Your task to perform on an android device: turn on the 12-hour format for clock Image 0: 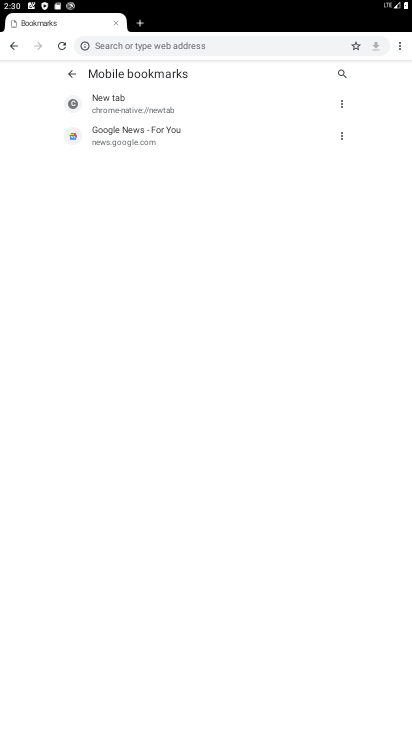
Step 0: press home button
Your task to perform on an android device: turn on the 12-hour format for clock Image 1: 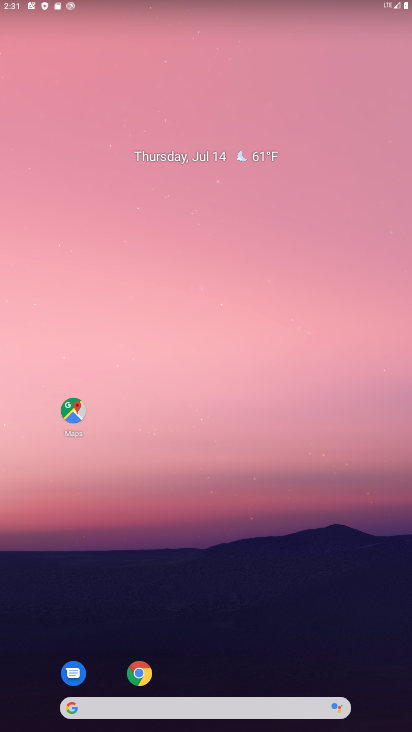
Step 1: drag from (239, 312) to (172, 15)
Your task to perform on an android device: turn on the 12-hour format for clock Image 2: 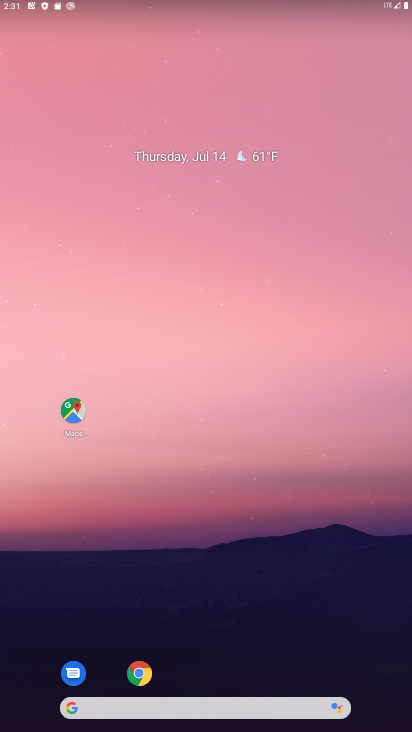
Step 2: drag from (200, 684) to (235, 107)
Your task to perform on an android device: turn on the 12-hour format for clock Image 3: 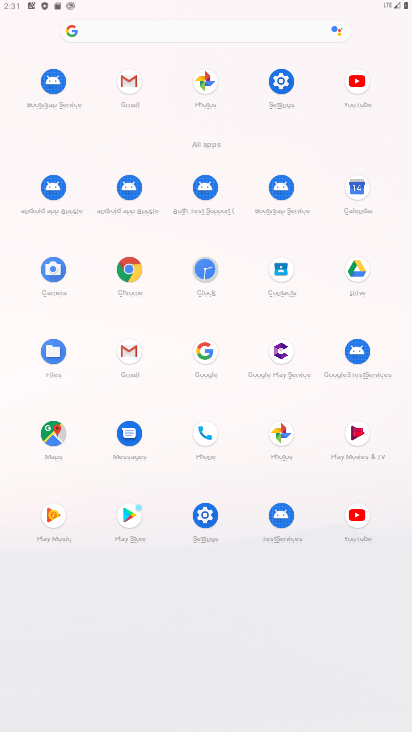
Step 3: click (208, 266)
Your task to perform on an android device: turn on the 12-hour format for clock Image 4: 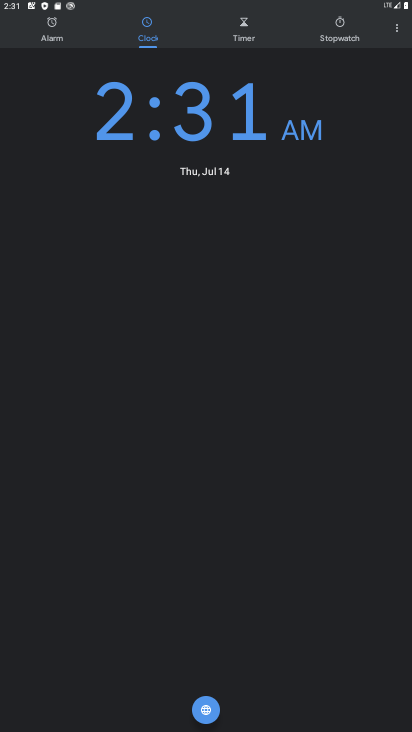
Step 4: click (403, 41)
Your task to perform on an android device: turn on the 12-hour format for clock Image 5: 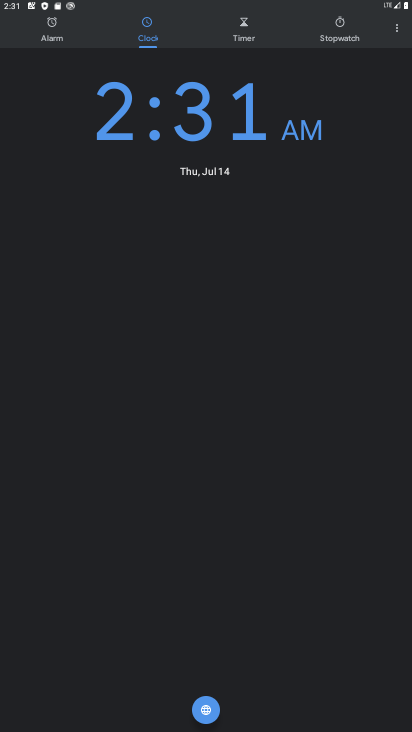
Step 5: click (403, 41)
Your task to perform on an android device: turn on the 12-hour format for clock Image 6: 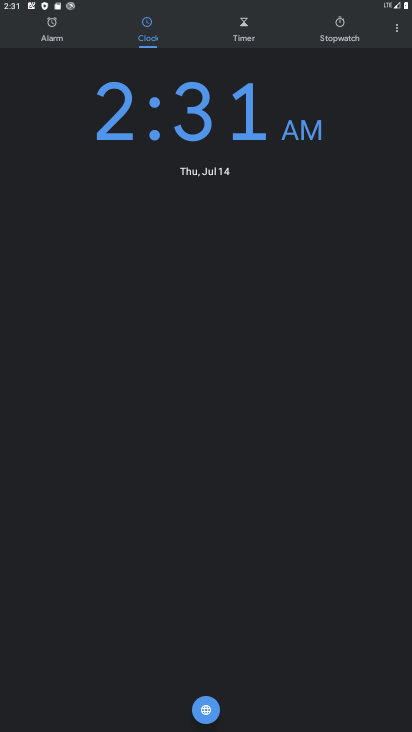
Step 6: click (391, 31)
Your task to perform on an android device: turn on the 12-hour format for clock Image 7: 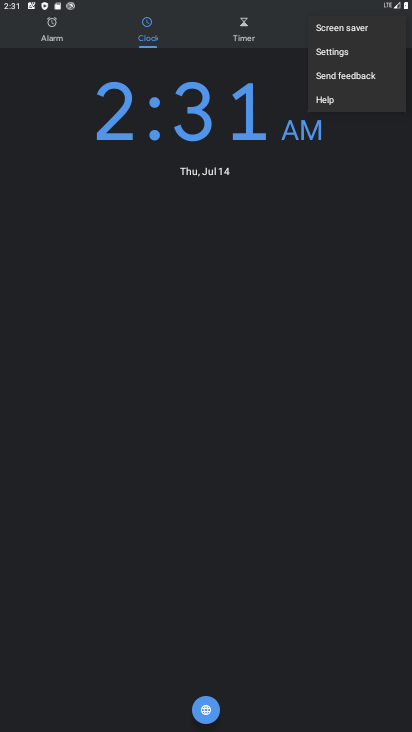
Step 7: click (330, 61)
Your task to perform on an android device: turn on the 12-hour format for clock Image 8: 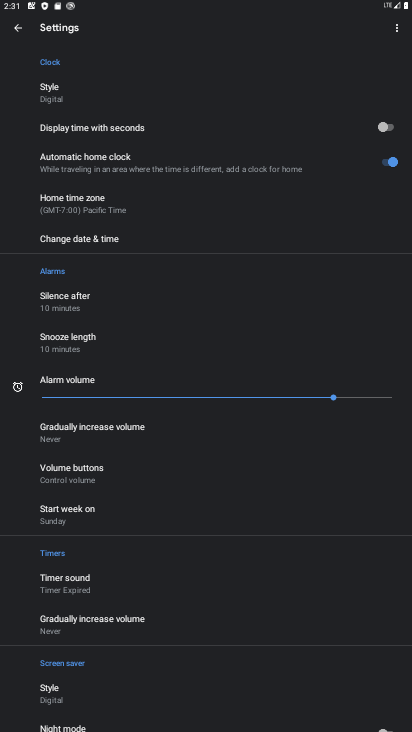
Step 8: task complete